Your task to perform on an android device: Go to Android settings Image 0: 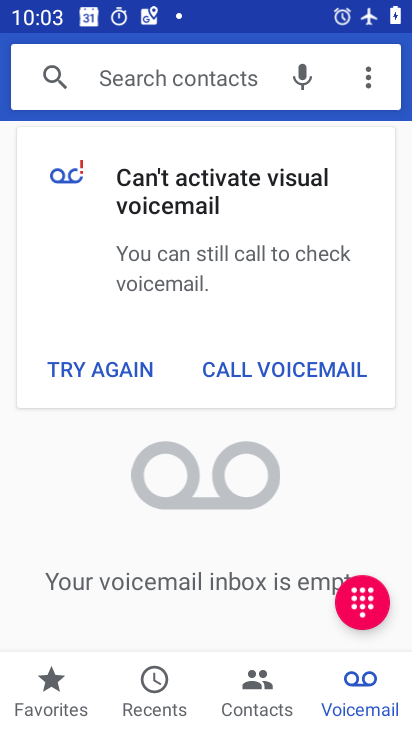
Step 0: press home button
Your task to perform on an android device: Go to Android settings Image 1: 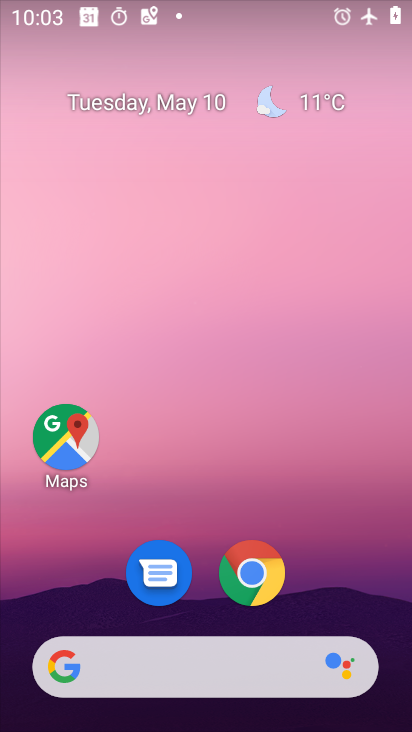
Step 1: drag from (345, 601) to (321, 0)
Your task to perform on an android device: Go to Android settings Image 2: 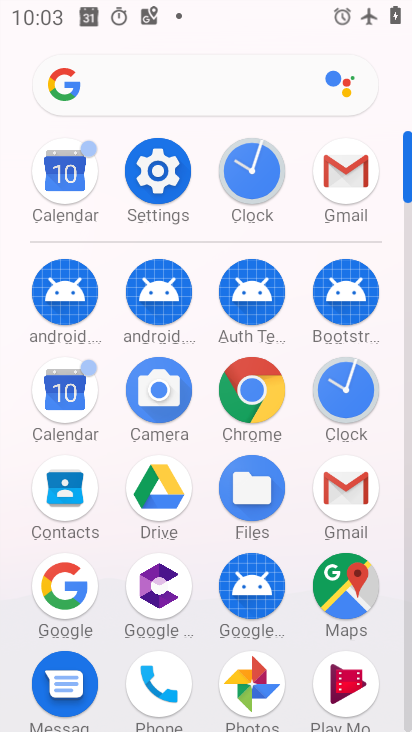
Step 2: click (160, 169)
Your task to perform on an android device: Go to Android settings Image 3: 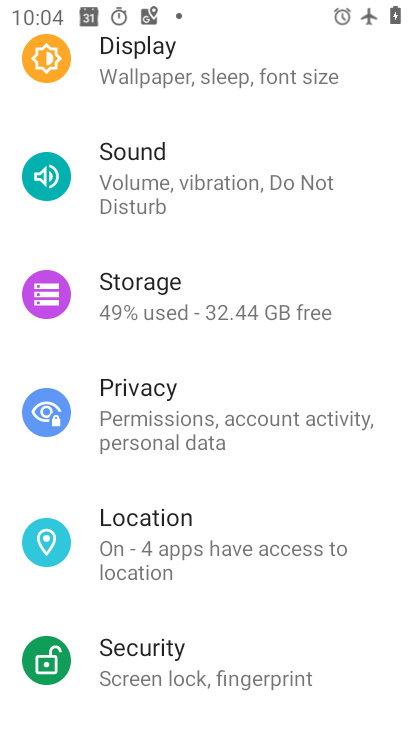
Step 3: task complete